Your task to perform on an android device: open a bookmark in the chrome app Image 0: 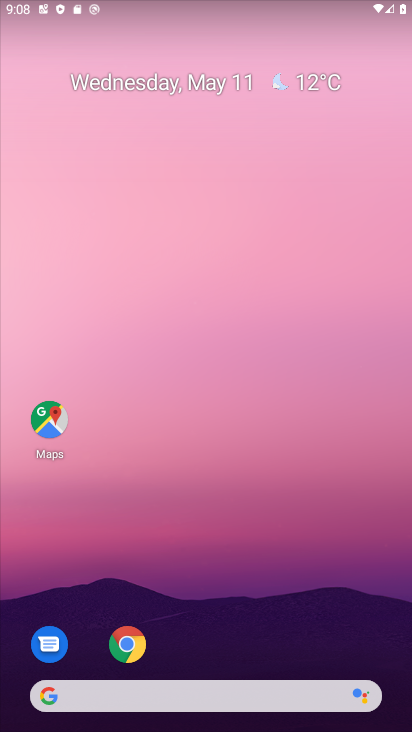
Step 0: click (125, 647)
Your task to perform on an android device: open a bookmark in the chrome app Image 1: 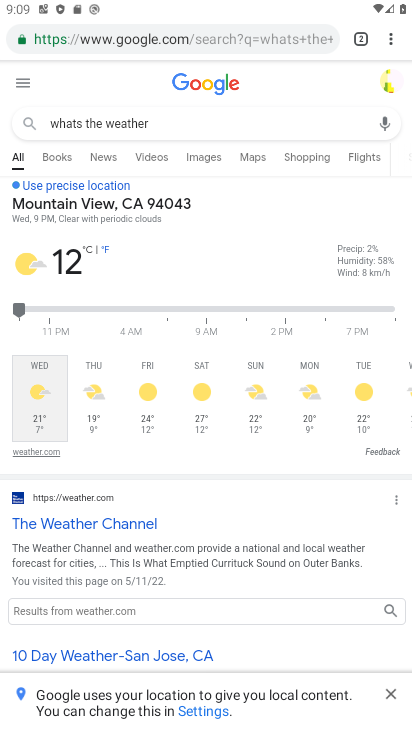
Step 1: click (387, 44)
Your task to perform on an android device: open a bookmark in the chrome app Image 2: 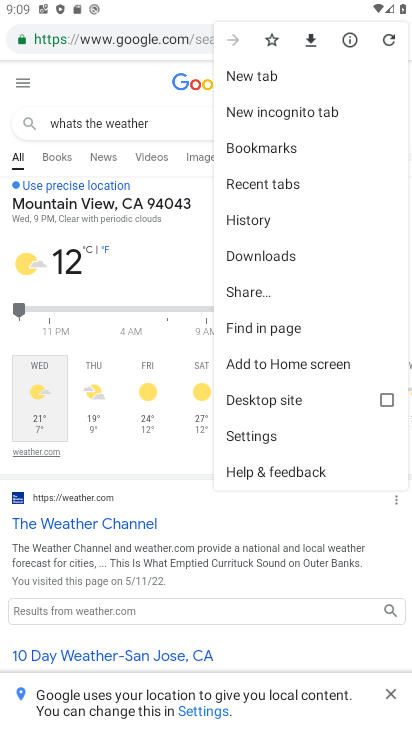
Step 2: click (280, 146)
Your task to perform on an android device: open a bookmark in the chrome app Image 3: 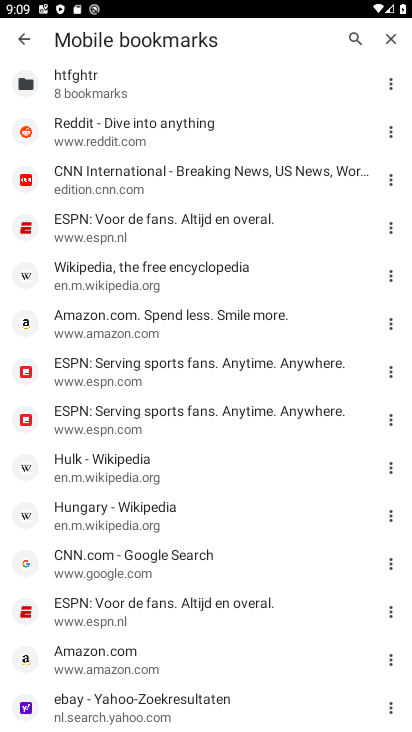
Step 3: task complete